Your task to perform on an android device: Search for nike dri-fit shirts on Nike Image 0: 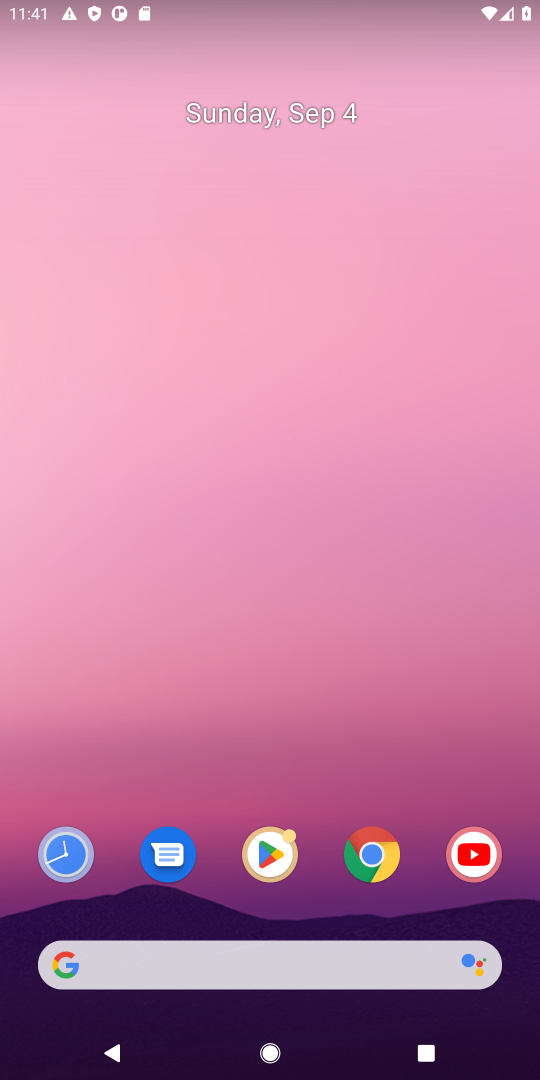
Step 0: press home button
Your task to perform on an android device: Search for nike dri-fit shirts on Nike Image 1: 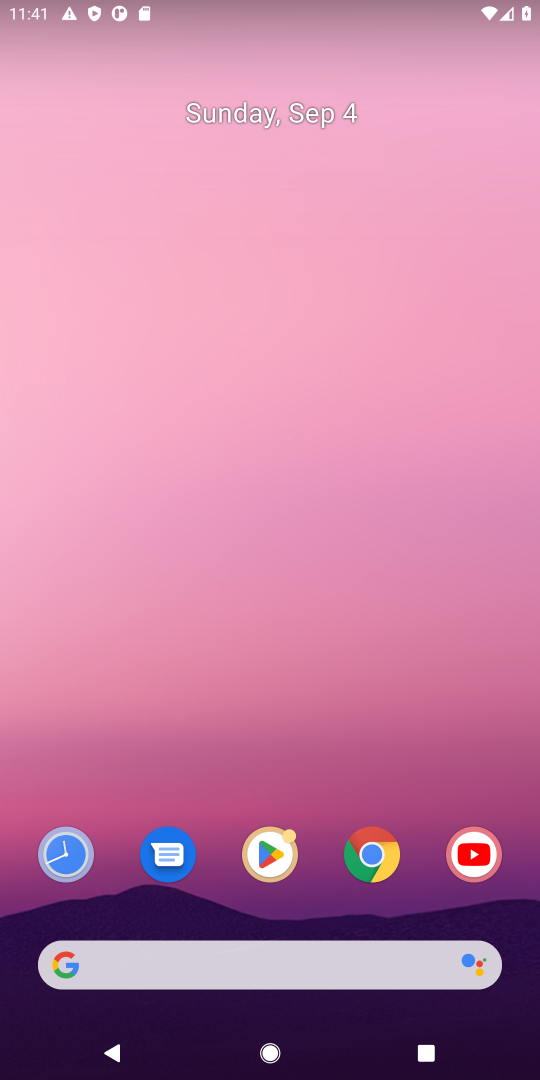
Step 1: click (384, 959)
Your task to perform on an android device: Search for nike dri-fit shirts on Nike Image 2: 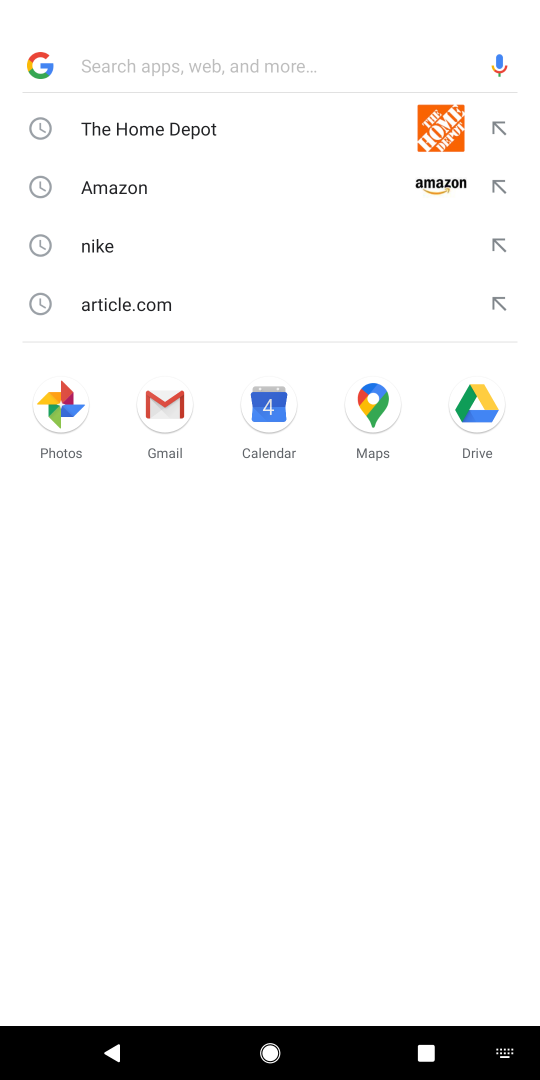
Step 2: type "nike"
Your task to perform on an android device: Search for nike dri-fit shirts on Nike Image 3: 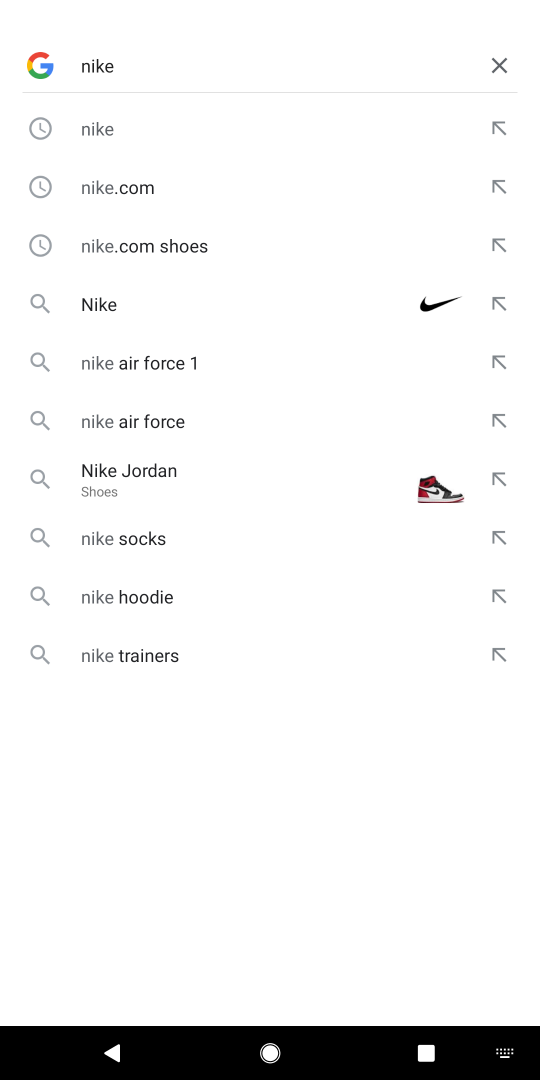
Step 3: press enter
Your task to perform on an android device: Search for nike dri-fit shirts on Nike Image 4: 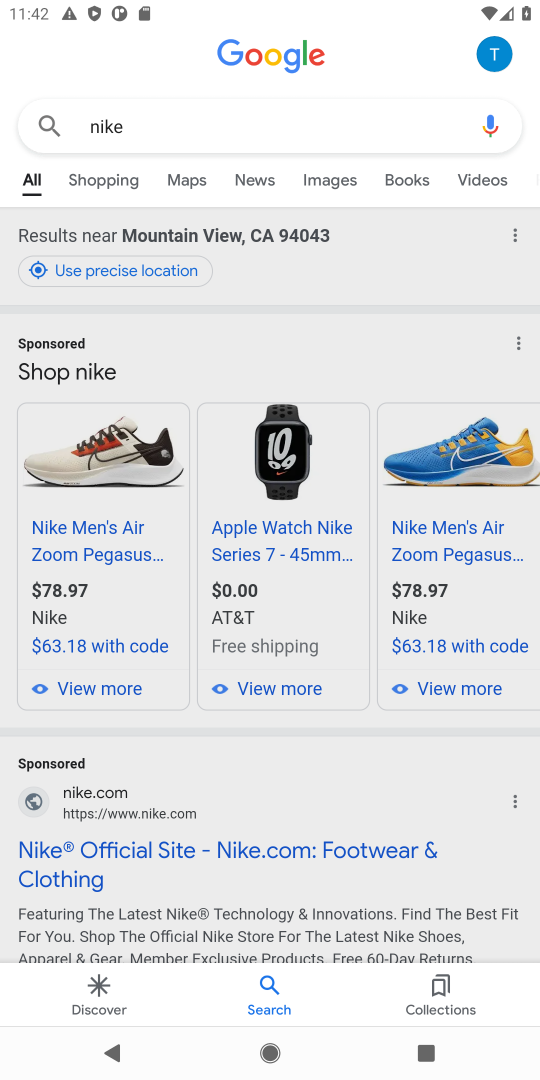
Step 4: click (323, 852)
Your task to perform on an android device: Search for nike dri-fit shirts on Nike Image 5: 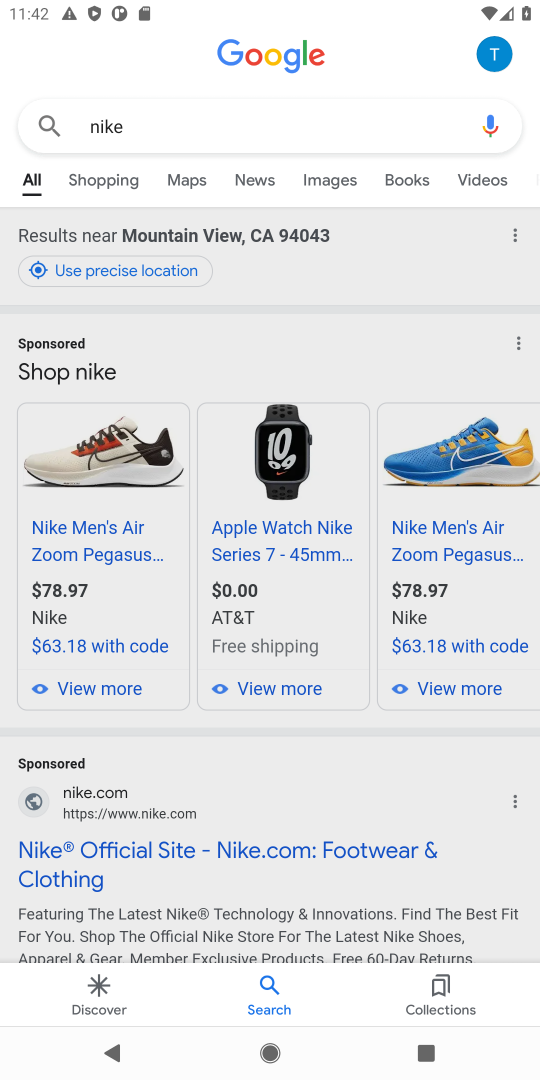
Step 5: click (120, 847)
Your task to perform on an android device: Search for nike dri-fit shirts on Nike Image 6: 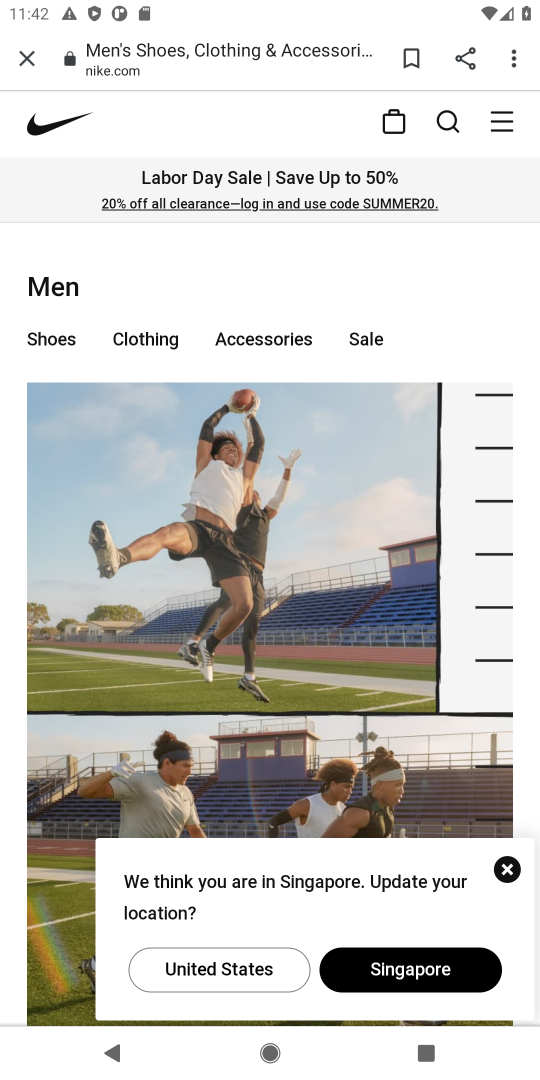
Step 6: click (443, 112)
Your task to perform on an android device: Search for nike dri-fit shirts on Nike Image 7: 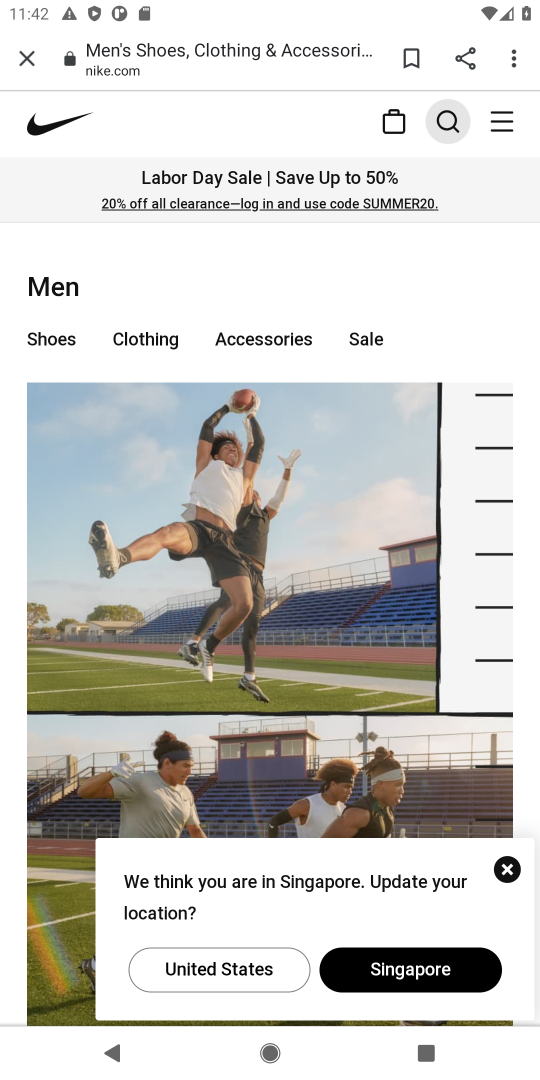
Step 7: click (454, 131)
Your task to perform on an android device: Search for nike dri-fit shirts on Nike Image 8: 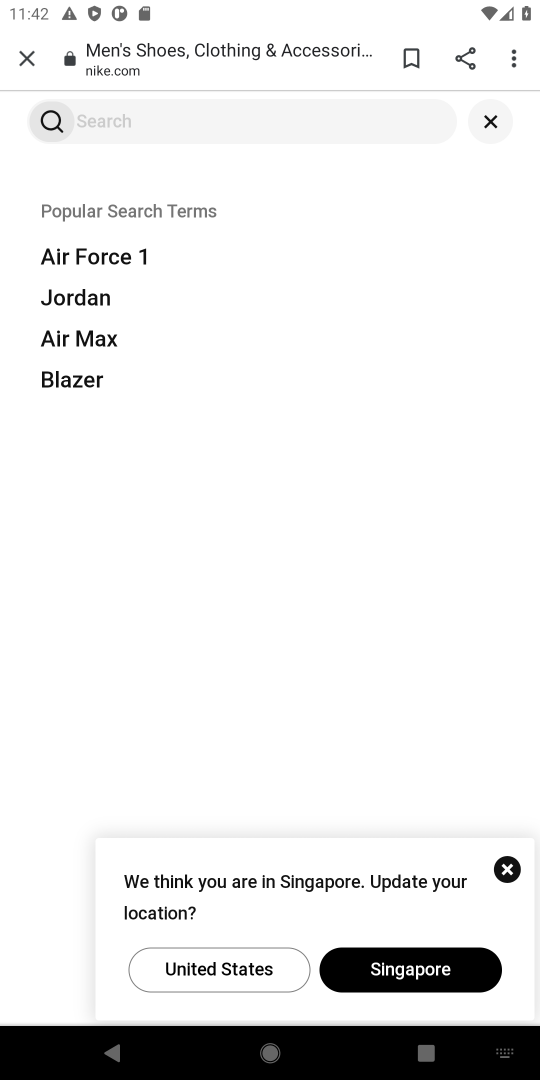
Step 8: type "nike dri fit shirts"
Your task to perform on an android device: Search for nike dri-fit shirts on Nike Image 9: 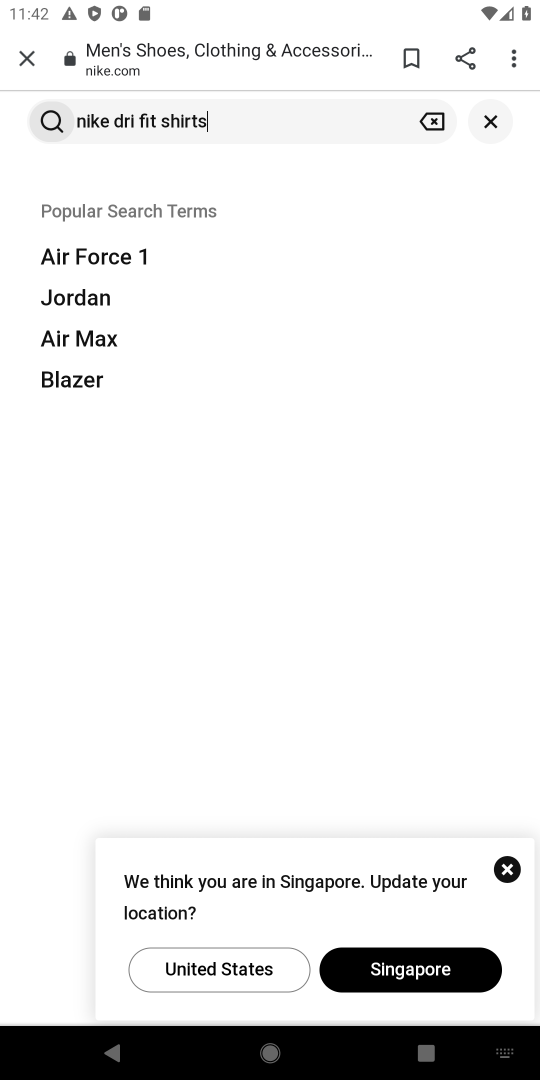
Step 9: press enter
Your task to perform on an android device: Search for nike dri-fit shirts on Nike Image 10: 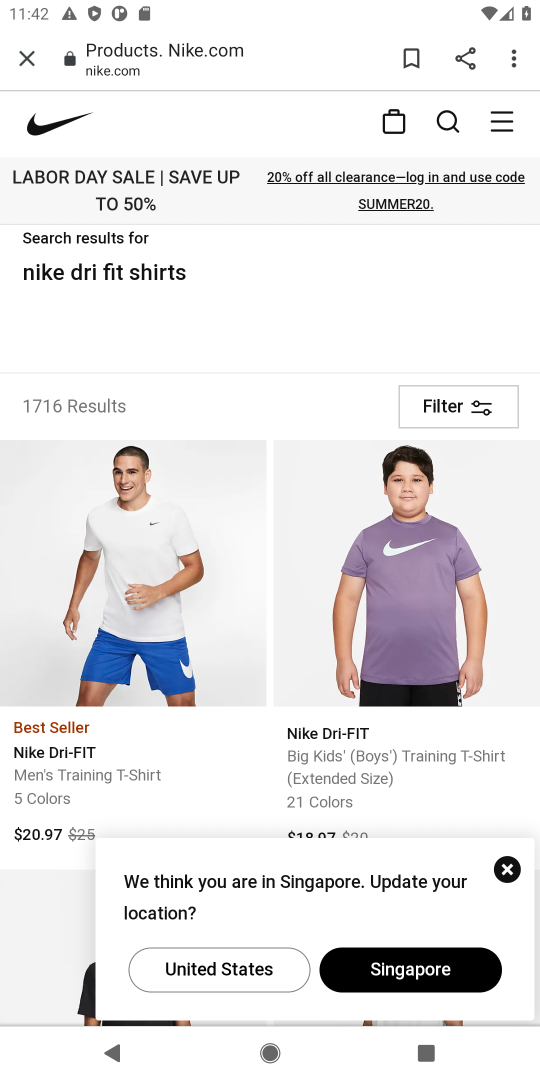
Step 10: click (513, 871)
Your task to perform on an android device: Search for nike dri-fit shirts on Nike Image 11: 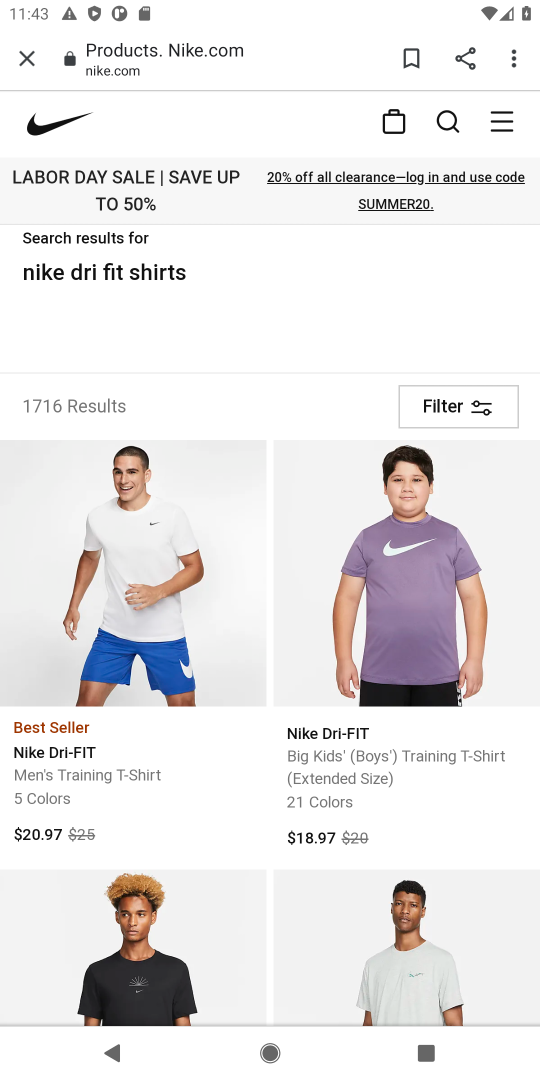
Step 11: task complete